Your task to perform on an android device: Go to wifi settings Image 0: 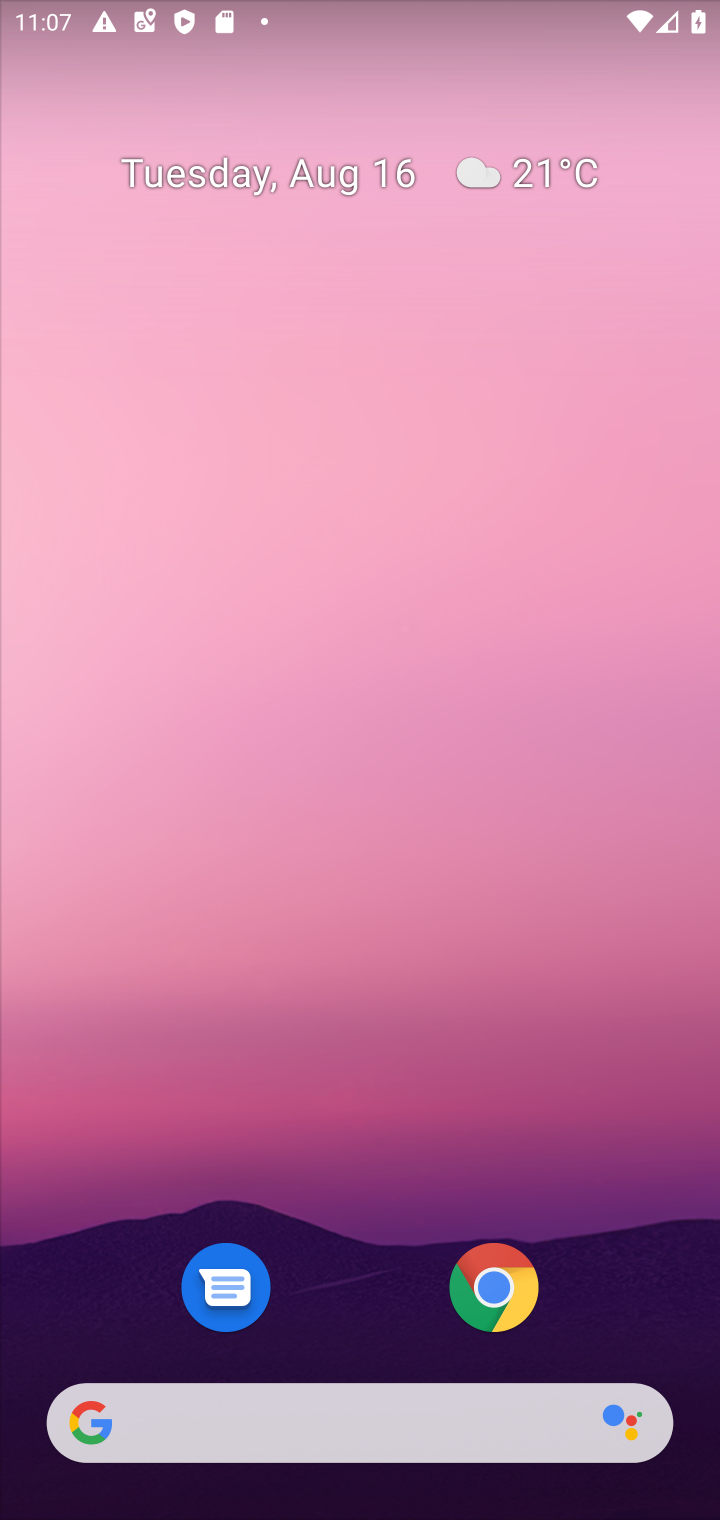
Step 0: drag from (689, 1315) to (551, 216)
Your task to perform on an android device: Go to wifi settings Image 1: 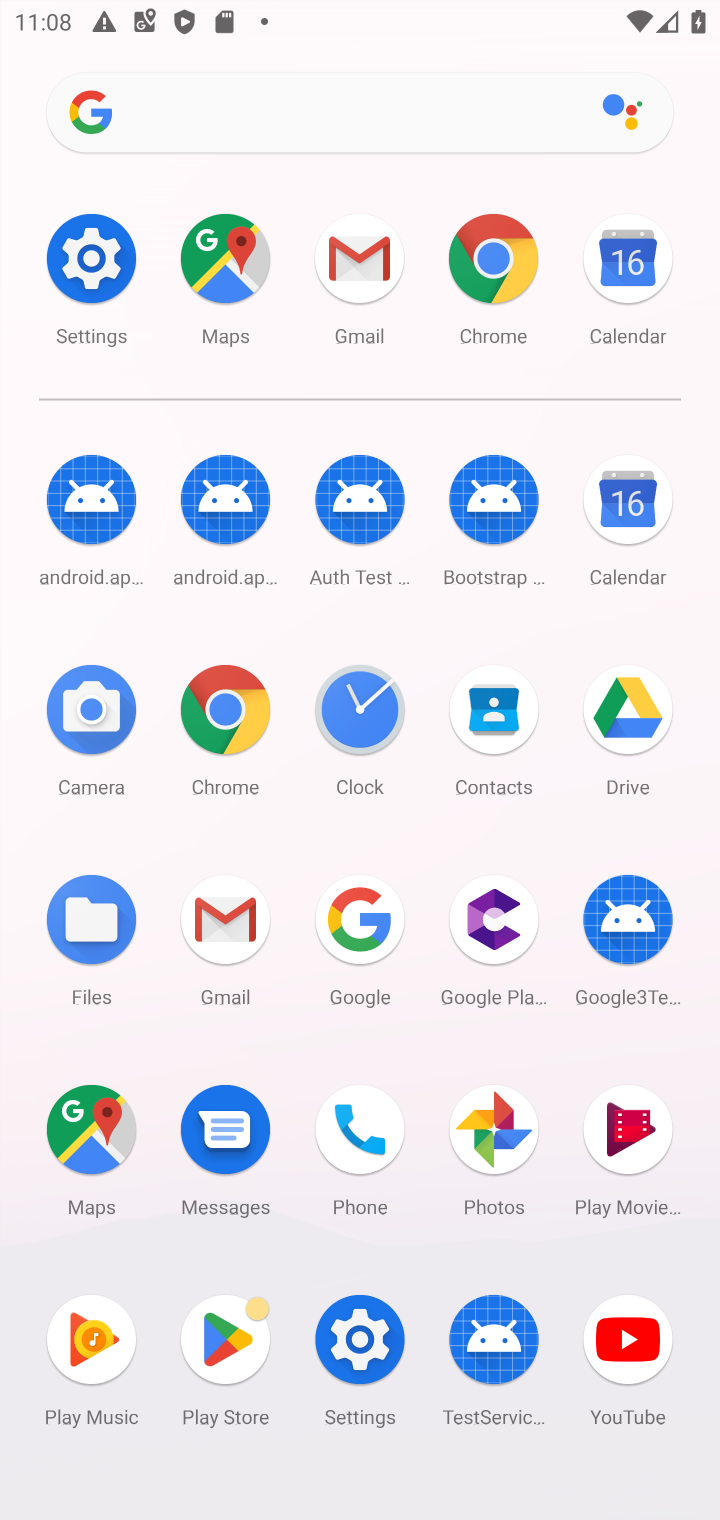
Step 1: click (357, 1348)
Your task to perform on an android device: Go to wifi settings Image 2: 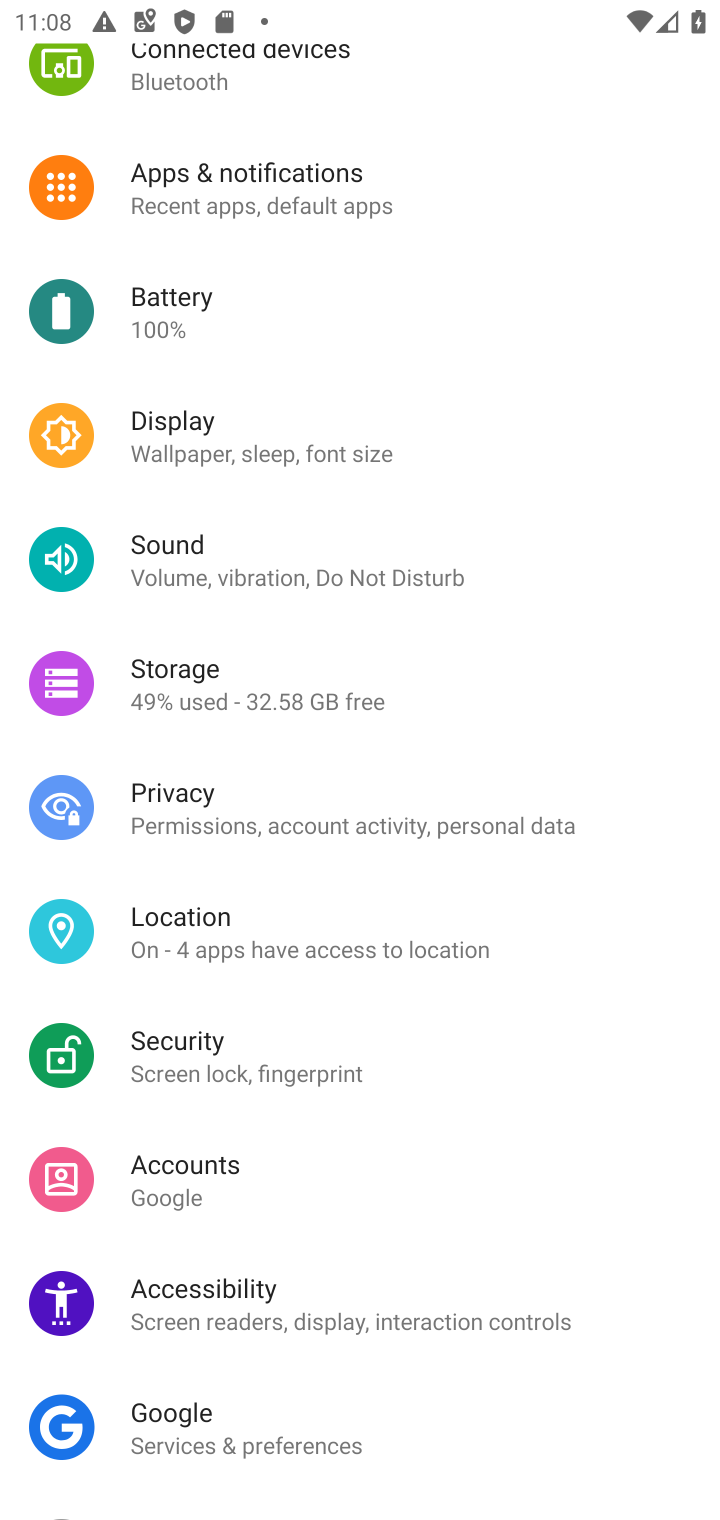
Step 2: drag from (566, 266) to (610, 923)
Your task to perform on an android device: Go to wifi settings Image 3: 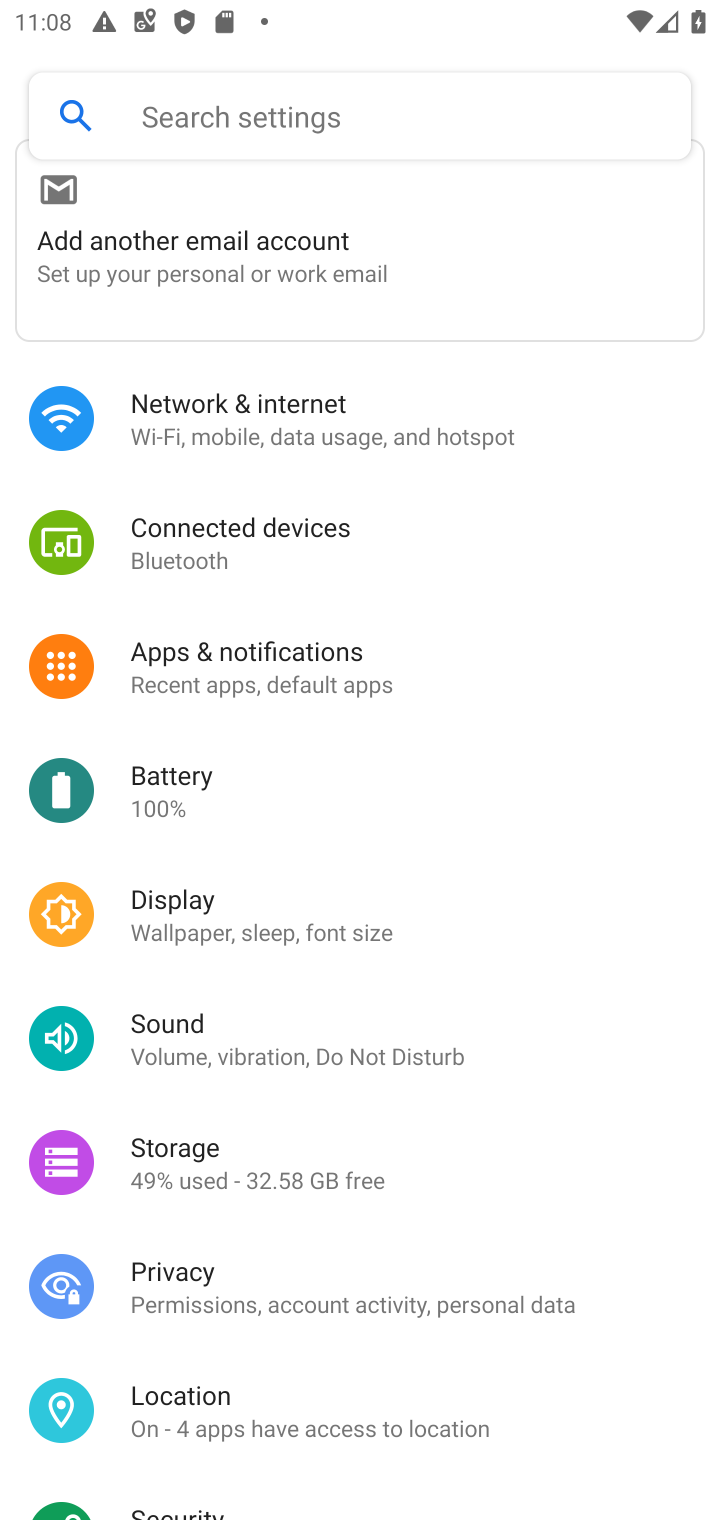
Step 3: click (228, 399)
Your task to perform on an android device: Go to wifi settings Image 4: 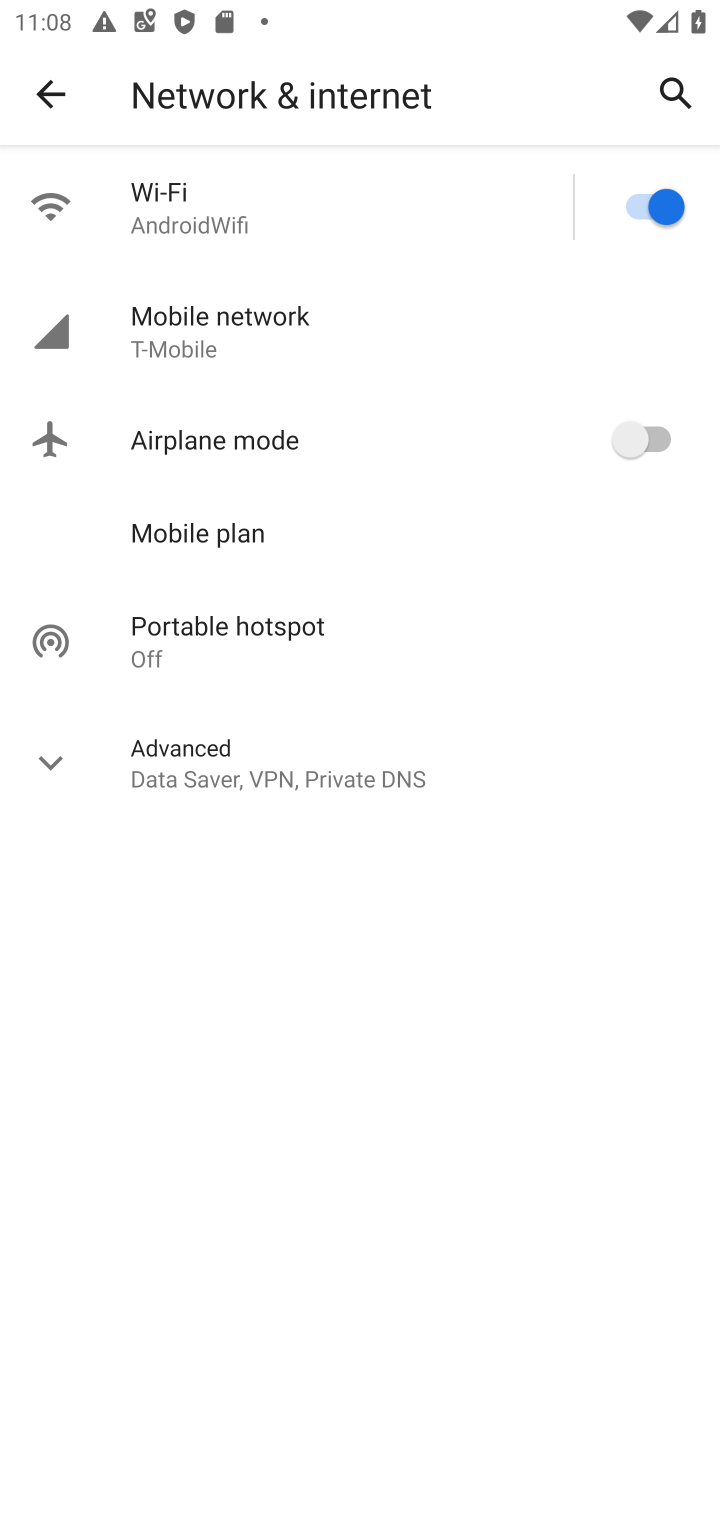
Step 4: click (149, 190)
Your task to perform on an android device: Go to wifi settings Image 5: 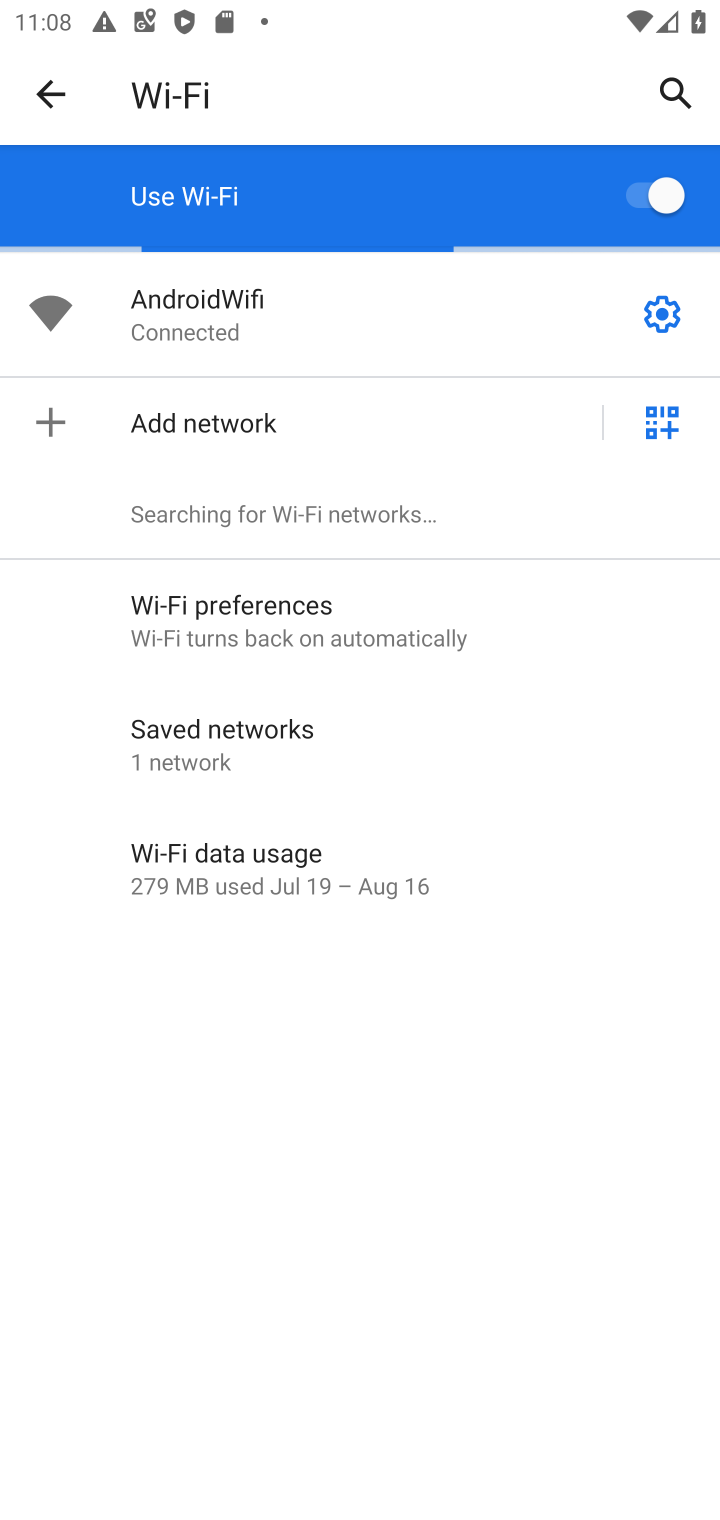
Step 5: click (662, 314)
Your task to perform on an android device: Go to wifi settings Image 6: 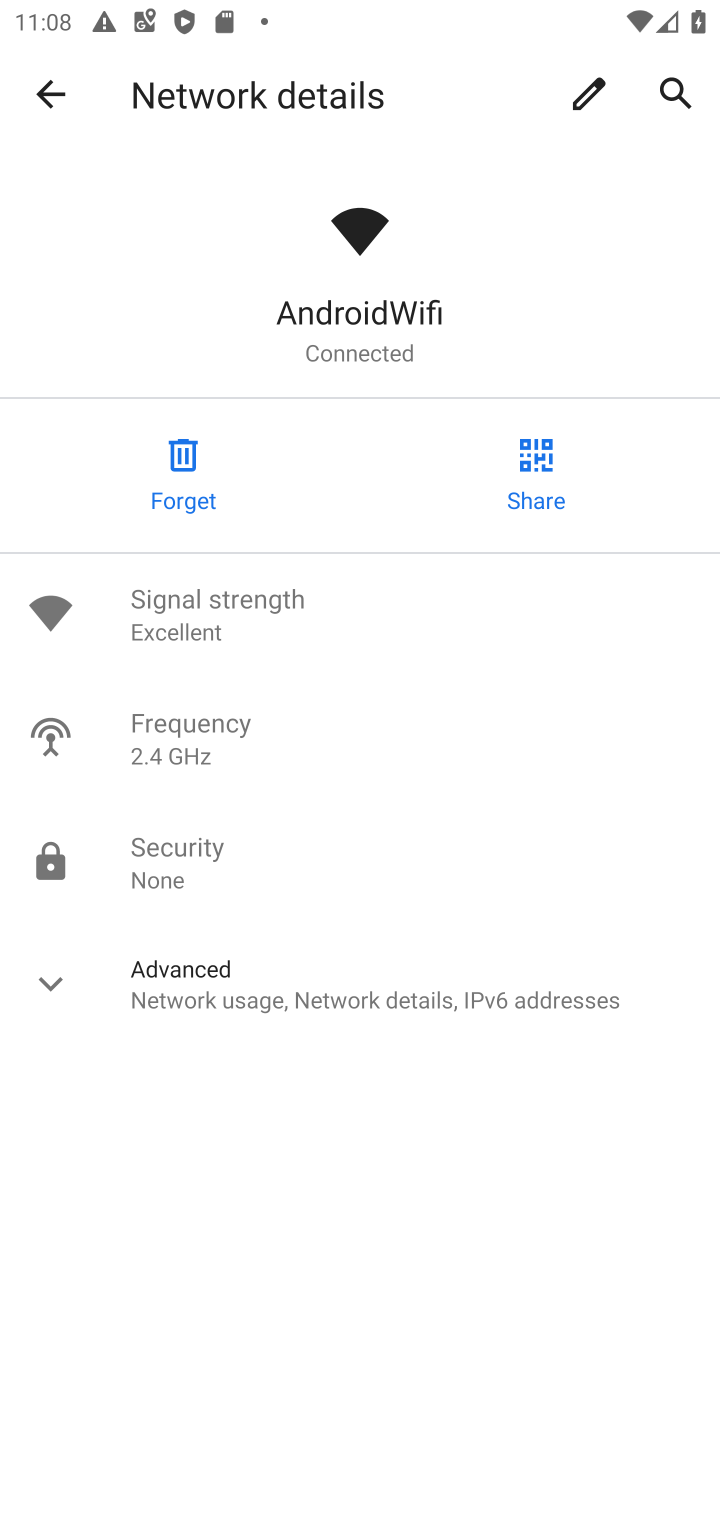
Step 6: task complete